Your task to perform on an android device: open chrome privacy settings Image 0: 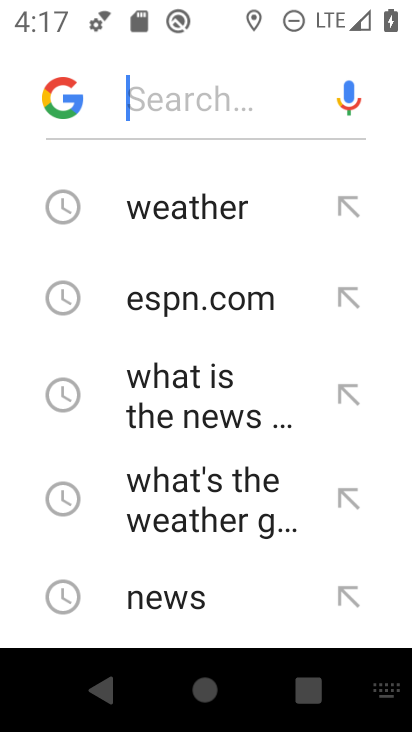
Step 0: press home button
Your task to perform on an android device: open chrome privacy settings Image 1: 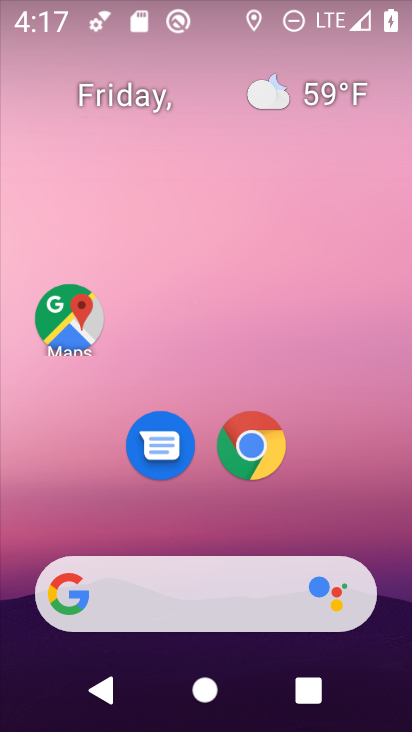
Step 1: click (251, 445)
Your task to perform on an android device: open chrome privacy settings Image 2: 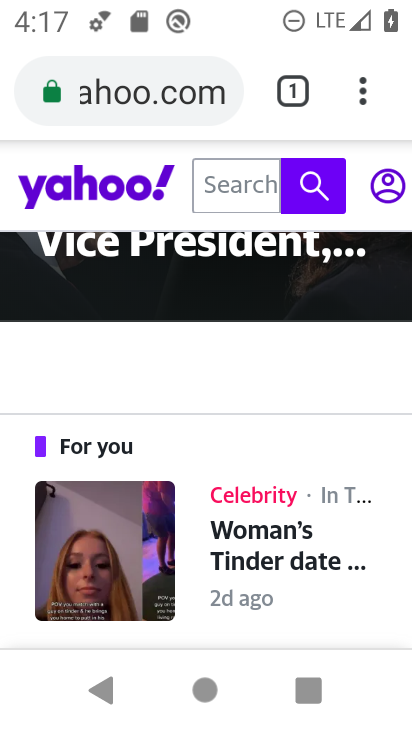
Step 2: click (361, 95)
Your task to perform on an android device: open chrome privacy settings Image 3: 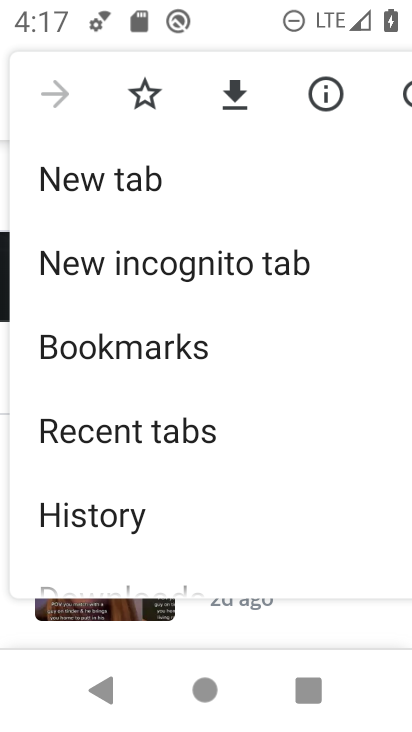
Step 3: drag from (219, 544) to (258, 181)
Your task to perform on an android device: open chrome privacy settings Image 4: 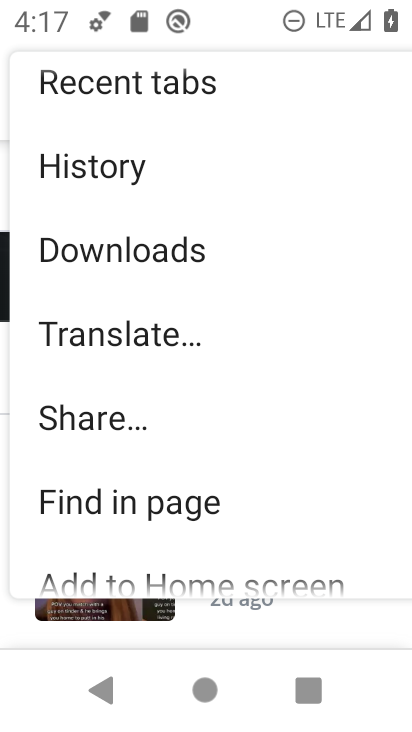
Step 4: drag from (295, 508) to (270, 211)
Your task to perform on an android device: open chrome privacy settings Image 5: 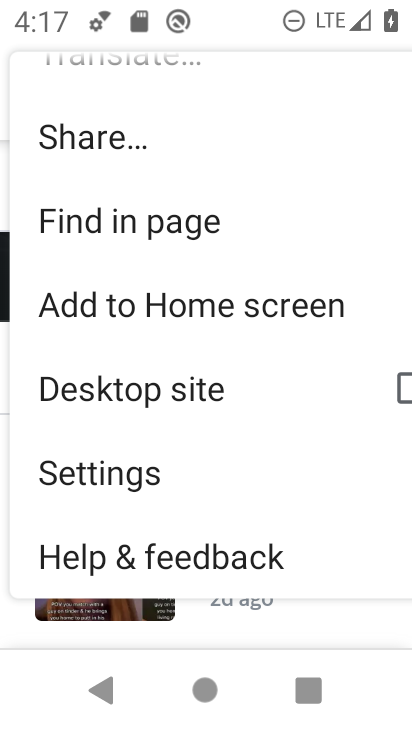
Step 5: click (120, 474)
Your task to perform on an android device: open chrome privacy settings Image 6: 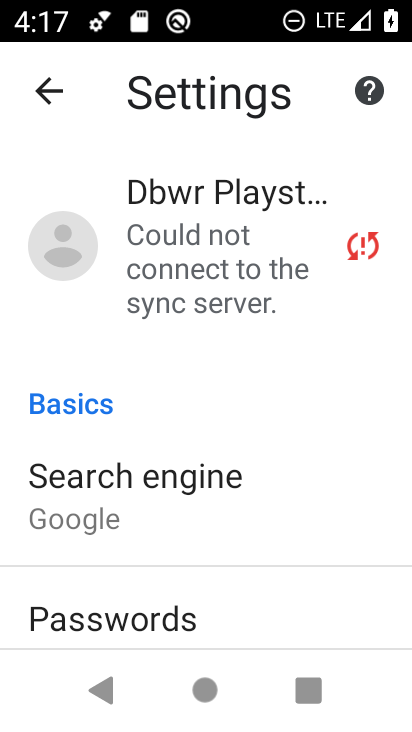
Step 6: drag from (239, 596) to (273, 181)
Your task to perform on an android device: open chrome privacy settings Image 7: 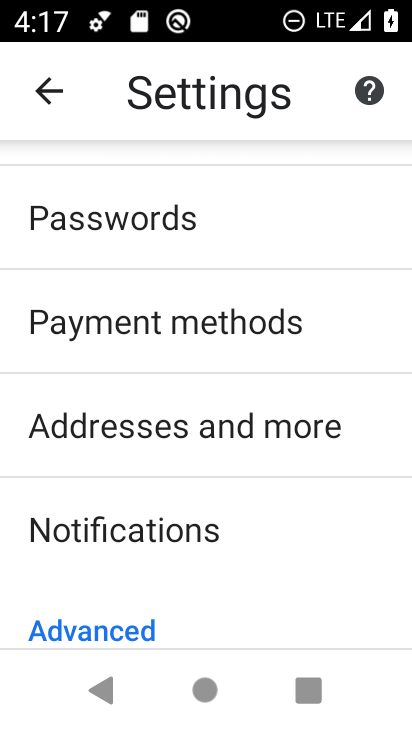
Step 7: drag from (269, 566) to (282, 241)
Your task to perform on an android device: open chrome privacy settings Image 8: 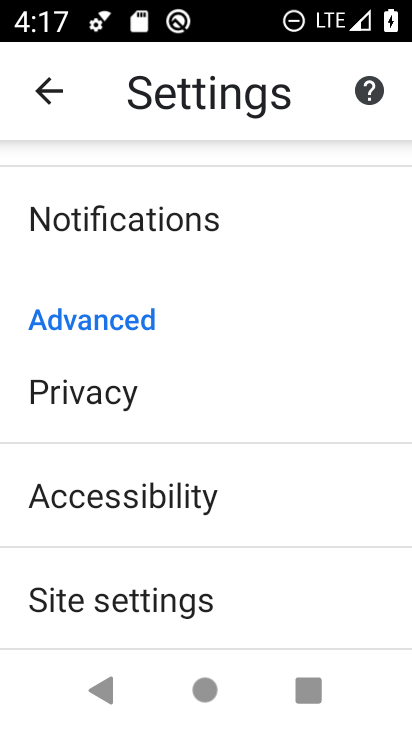
Step 8: click (74, 401)
Your task to perform on an android device: open chrome privacy settings Image 9: 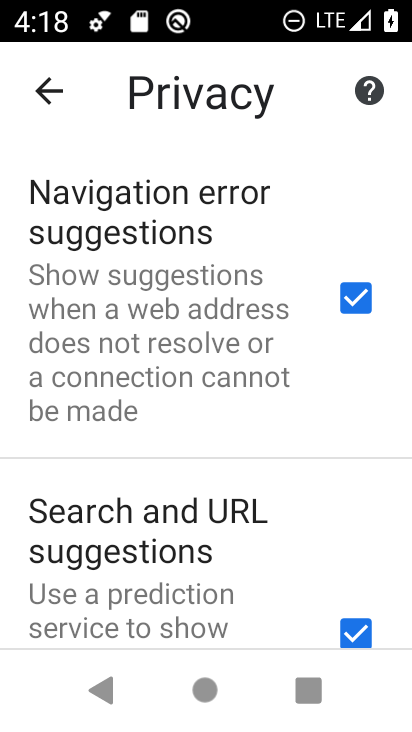
Step 9: task complete